Your task to perform on an android device: move a message to another label in the gmail app Image 0: 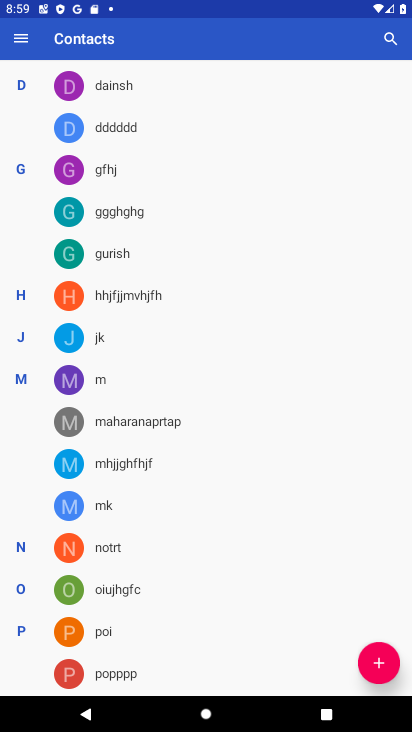
Step 0: press home button
Your task to perform on an android device: move a message to another label in the gmail app Image 1: 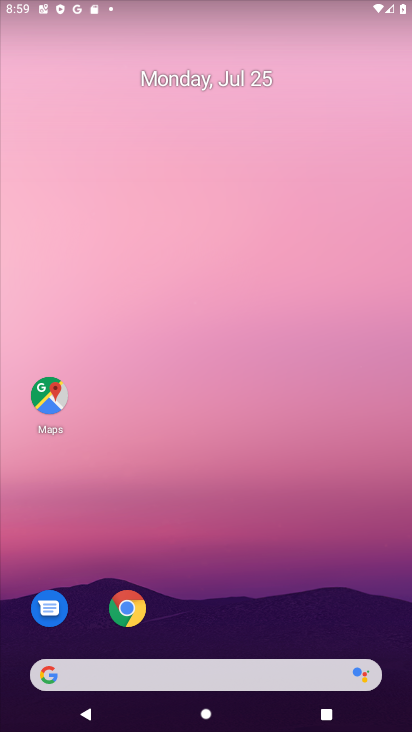
Step 1: drag from (179, 646) to (174, 207)
Your task to perform on an android device: move a message to another label in the gmail app Image 2: 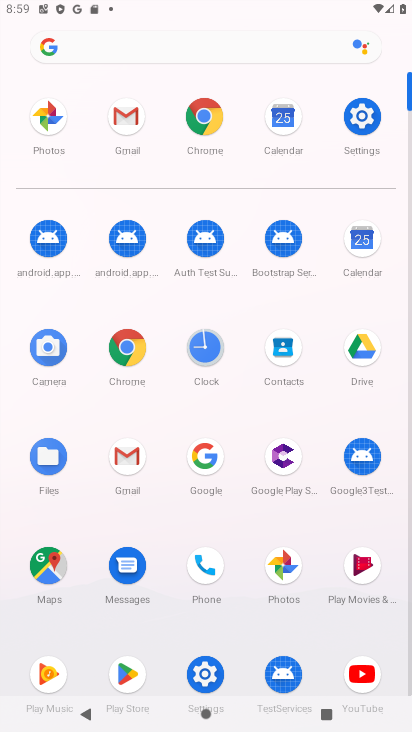
Step 2: click (138, 438)
Your task to perform on an android device: move a message to another label in the gmail app Image 3: 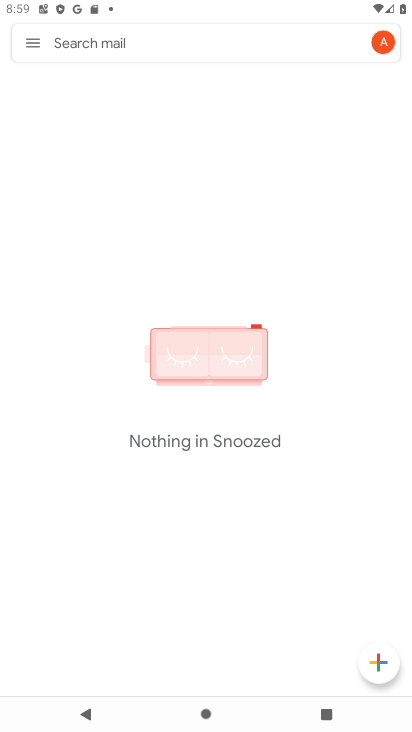
Step 3: click (28, 34)
Your task to perform on an android device: move a message to another label in the gmail app Image 4: 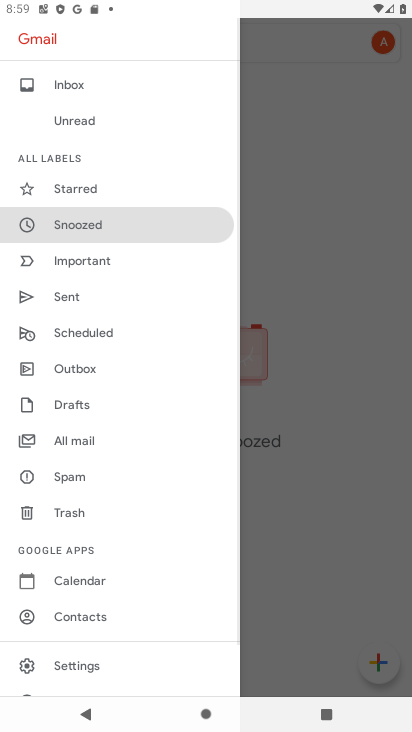
Step 4: click (80, 433)
Your task to perform on an android device: move a message to another label in the gmail app Image 5: 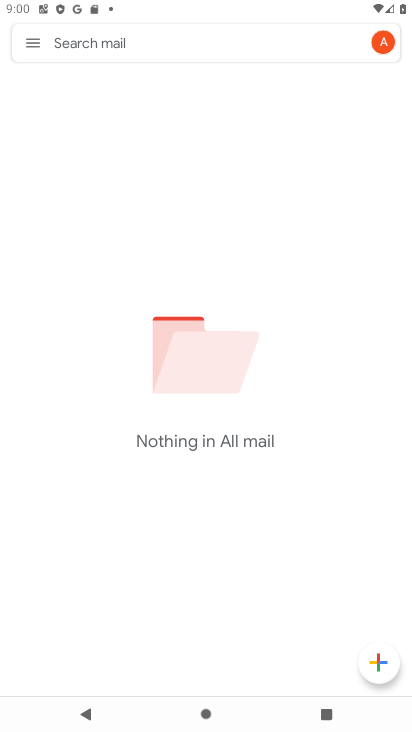
Step 5: task complete